Your task to perform on an android device: see sites visited before in the chrome app Image 0: 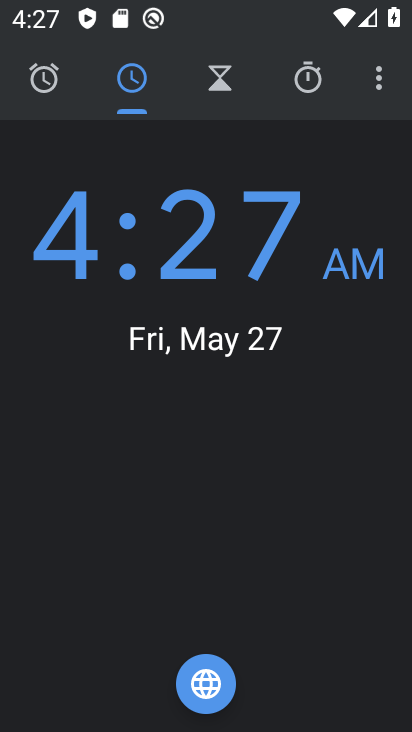
Step 0: press home button
Your task to perform on an android device: see sites visited before in the chrome app Image 1: 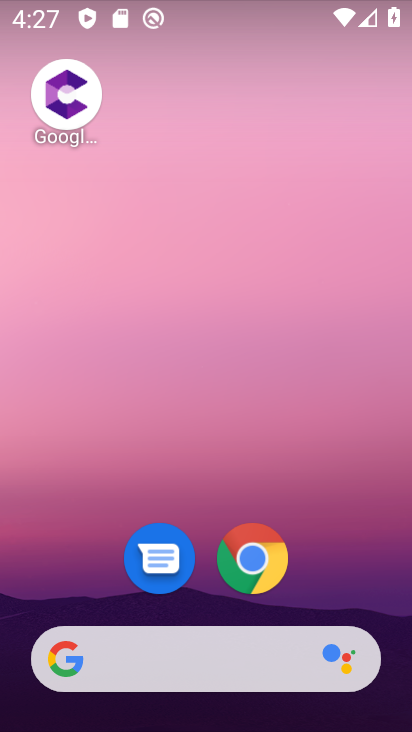
Step 1: click (259, 550)
Your task to perform on an android device: see sites visited before in the chrome app Image 2: 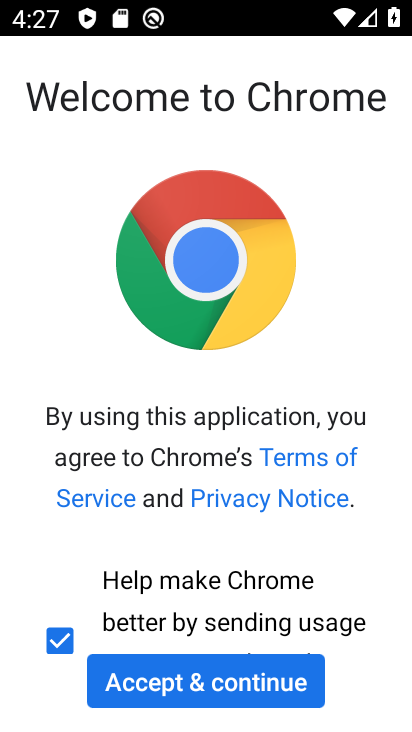
Step 2: click (238, 689)
Your task to perform on an android device: see sites visited before in the chrome app Image 3: 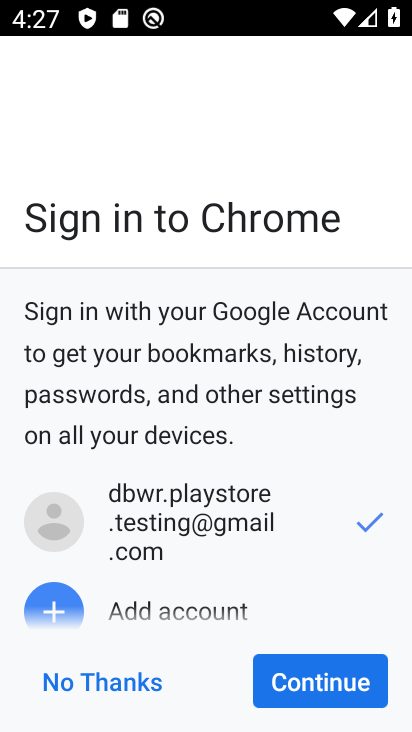
Step 3: click (283, 685)
Your task to perform on an android device: see sites visited before in the chrome app Image 4: 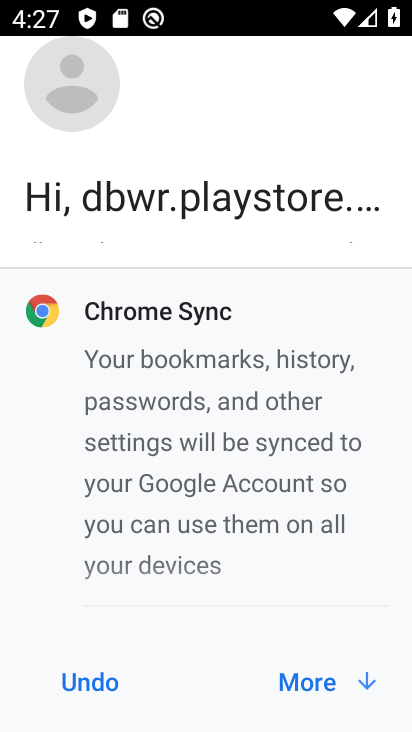
Step 4: click (283, 685)
Your task to perform on an android device: see sites visited before in the chrome app Image 5: 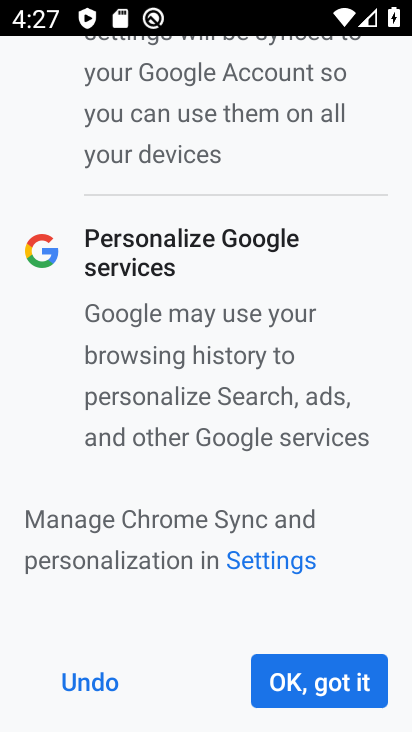
Step 5: click (283, 685)
Your task to perform on an android device: see sites visited before in the chrome app Image 6: 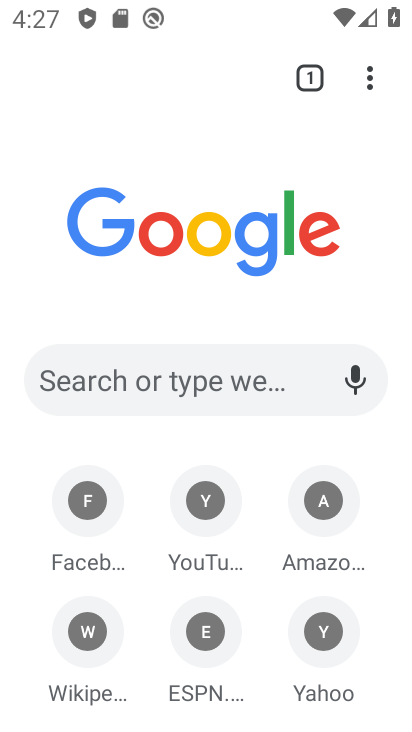
Step 6: click (372, 86)
Your task to perform on an android device: see sites visited before in the chrome app Image 7: 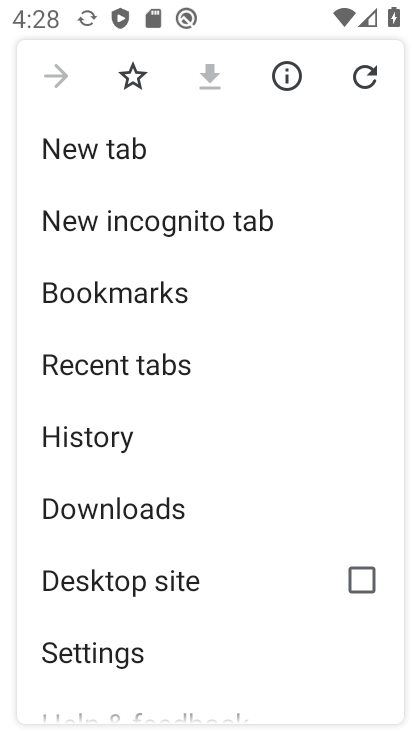
Step 7: click (104, 428)
Your task to perform on an android device: see sites visited before in the chrome app Image 8: 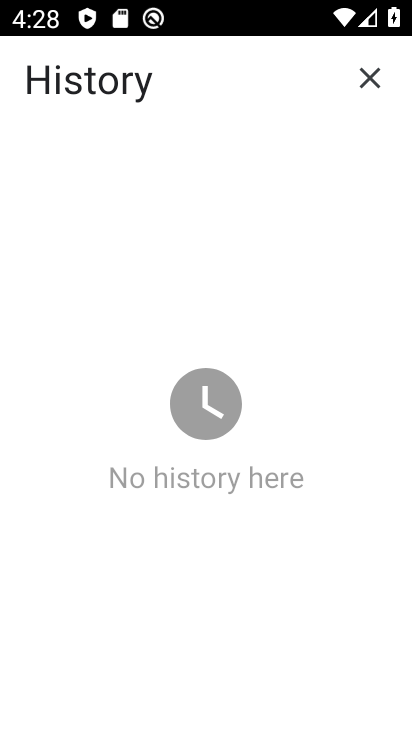
Step 8: task complete